Your task to perform on an android device: Go to notification settings Image 0: 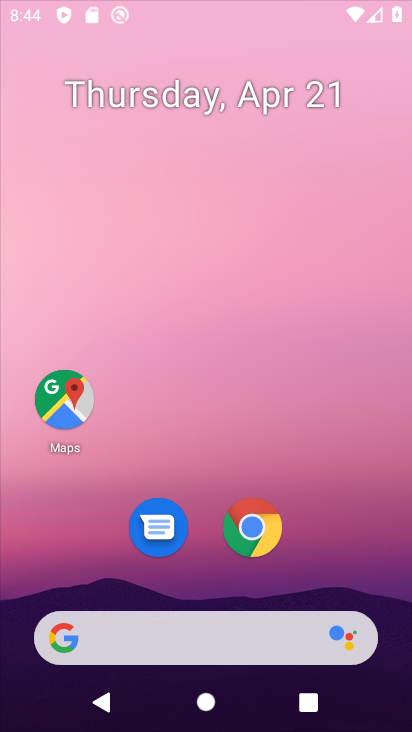
Step 0: drag from (224, 345) to (293, 8)
Your task to perform on an android device: Go to notification settings Image 1: 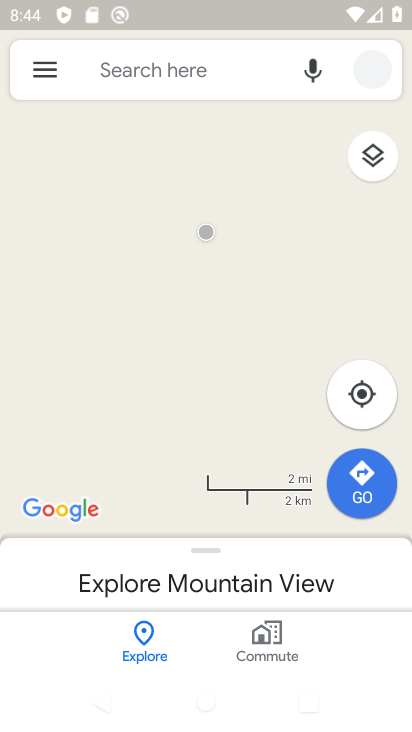
Step 1: press home button
Your task to perform on an android device: Go to notification settings Image 2: 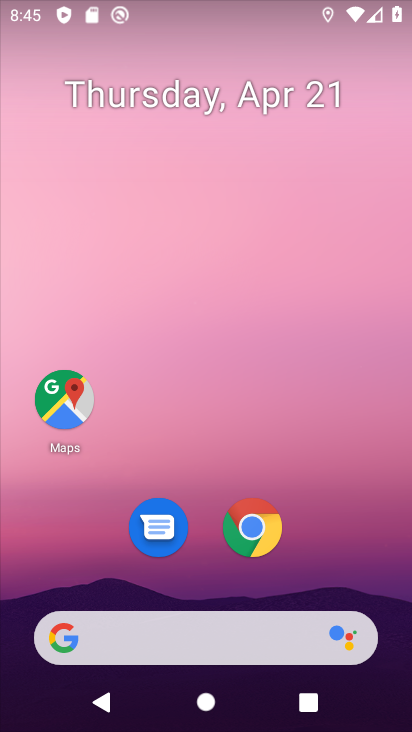
Step 2: drag from (262, 315) to (143, 7)
Your task to perform on an android device: Go to notification settings Image 3: 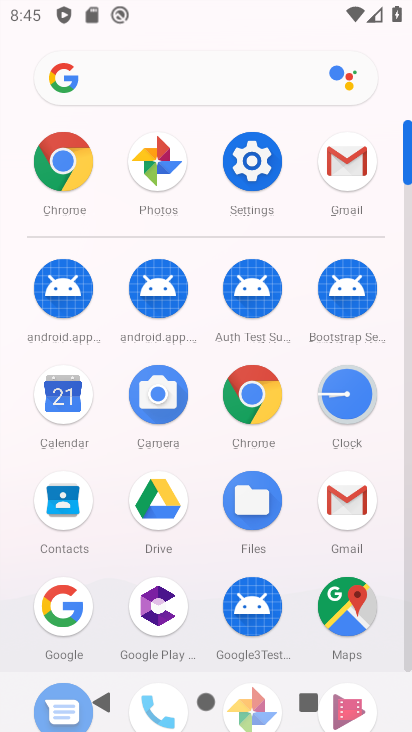
Step 3: click (279, 184)
Your task to perform on an android device: Go to notification settings Image 4: 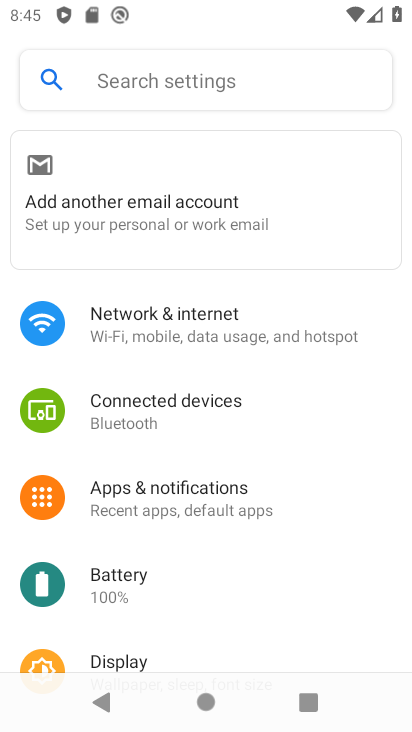
Step 4: click (256, 487)
Your task to perform on an android device: Go to notification settings Image 5: 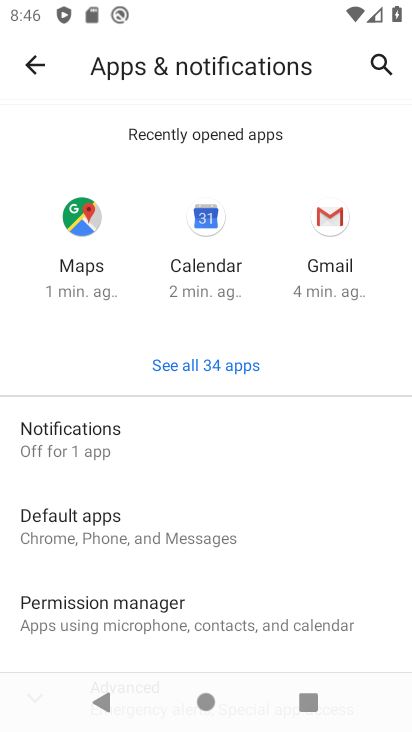
Step 5: click (183, 432)
Your task to perform on an android device: Go to notification settings Image 6: 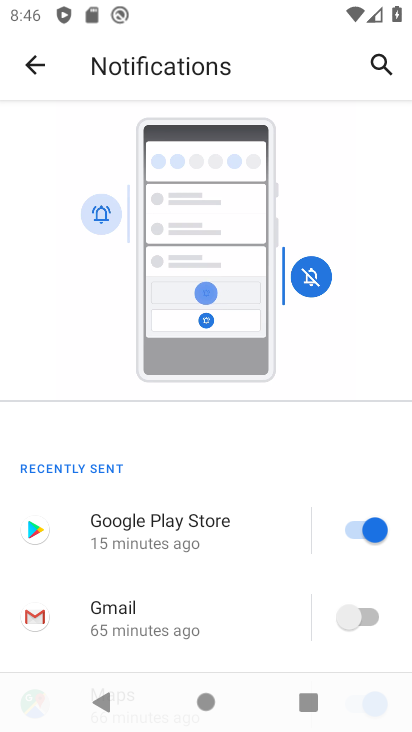
Step 6: task complete